Your task to perform on an android device: check the backup settings in the google photos Image 0: 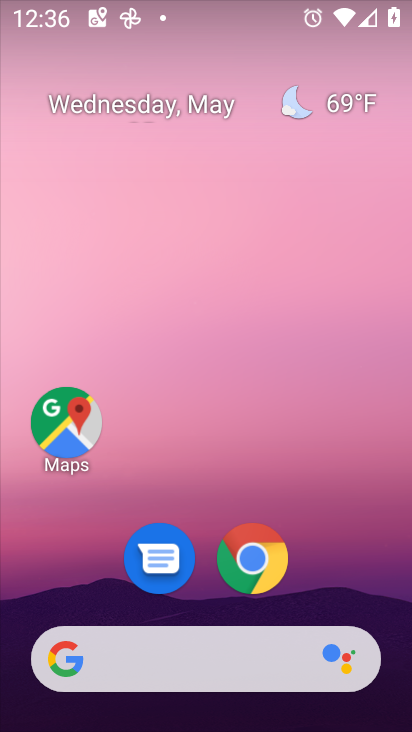
Step 0: drag from (385, 632) to (275, 31)
Your task to perform on an android device: check the backup settings in the google photos Image 1: 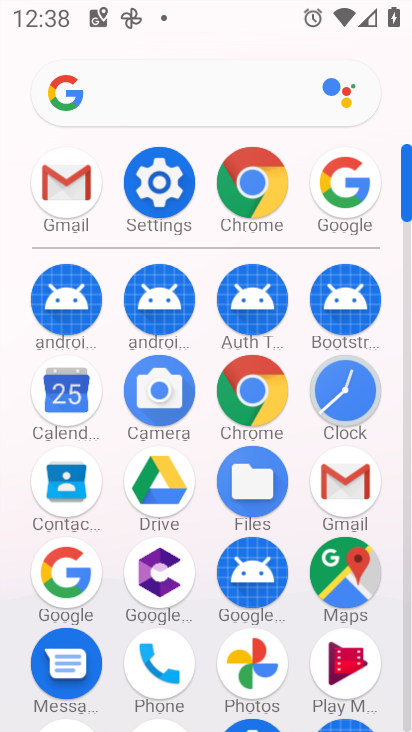
Step 1: click (232, 676)
Your task to perform on an android device: check the backup settings in the google photos Image 2: 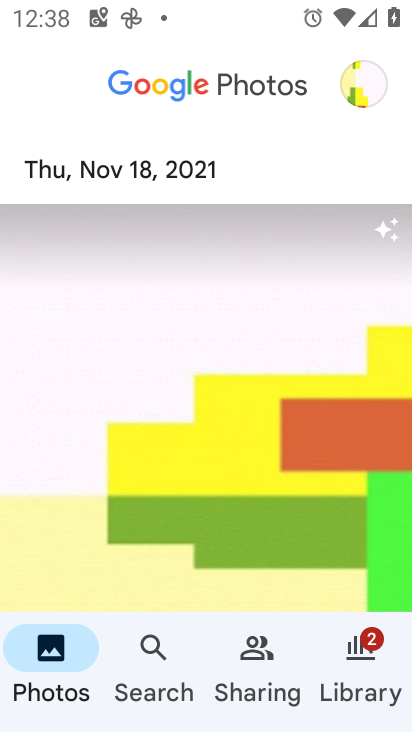
Step 2: click (363, 82)
Your task to perform on an android device: check the backup settings in the google photos Image 3: 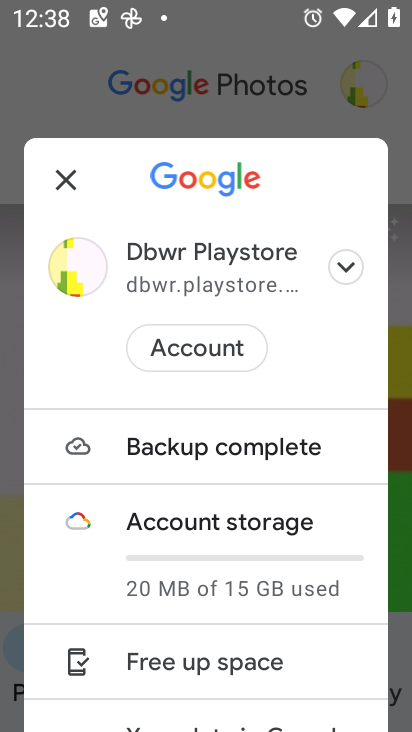
Step 3: click (213, 425)
Your task to perform on an android device: check the backup settings in the google photos Image 4: 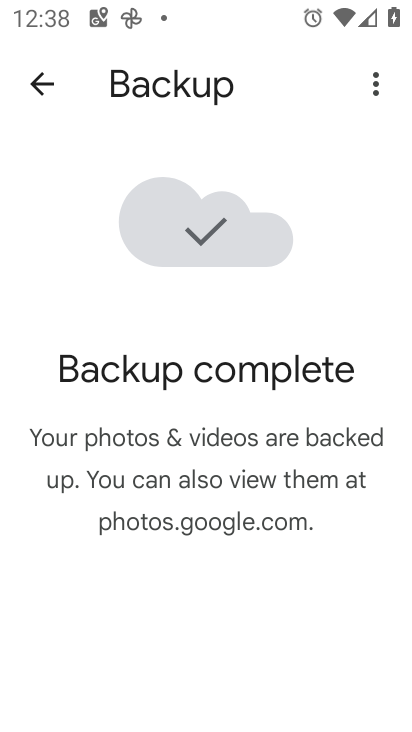
Step 4: task complete